Your task to perform on an android device: Clear the shopping cart on bestbuy.com. Search for rayovac triple a on bestbuy.com, select the first entry, and add it to the cart. Image 0: 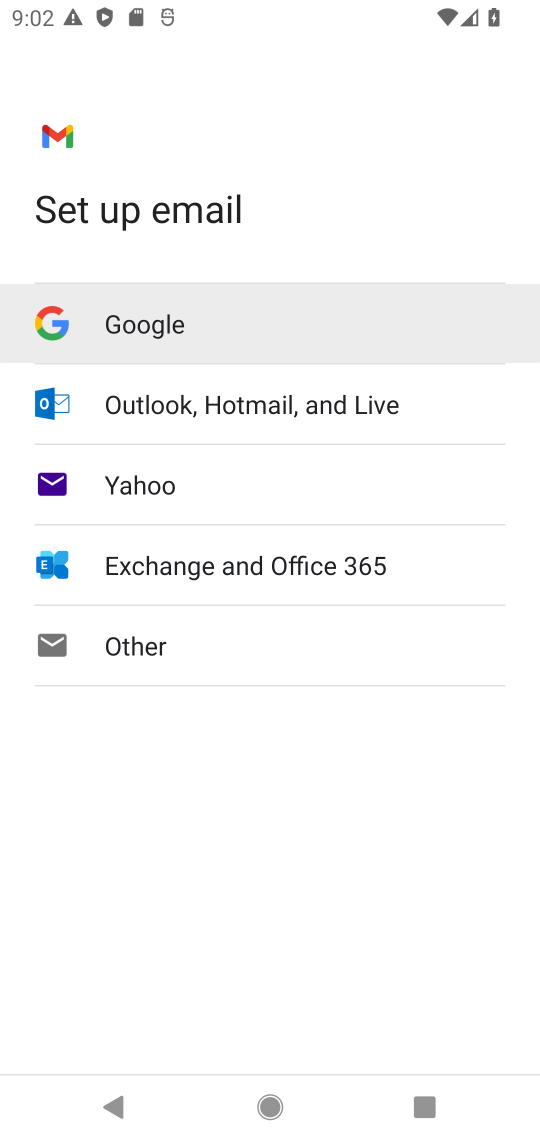
Step 0: press home button
Your task to perform on an android device: Clear the shopping cart on bestbuy.com. Search for rayovac triple a on bestbuy.com, select the first entry, and add it to the cart. Image 1: 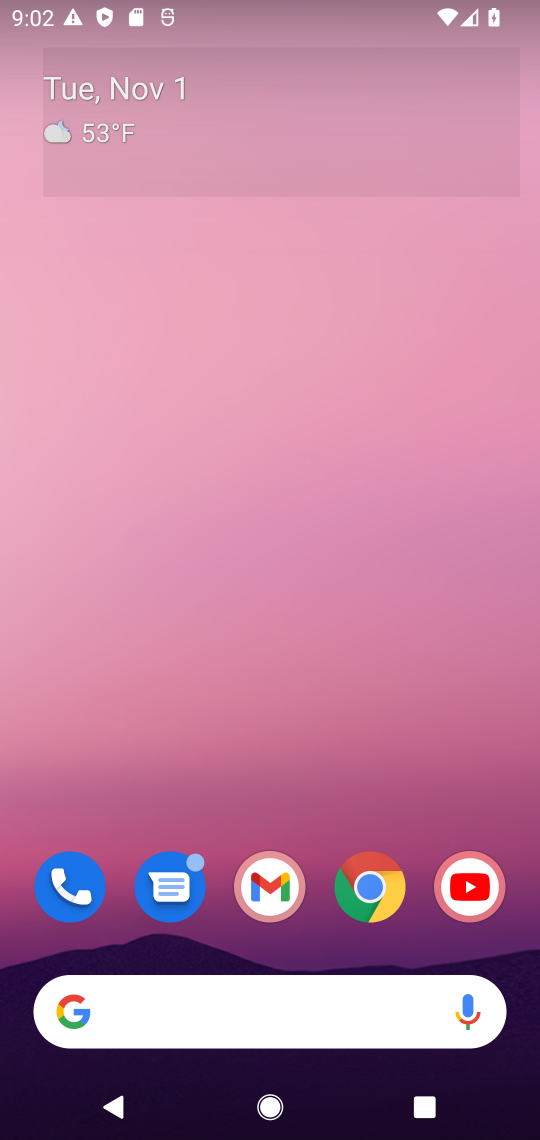
Step 1: drag from (205, 912) to (216, 383)
Your task to perform on an android device: Clear the shopping cart on bestbuy.com. Search for rayovac triple a on bestbuy.com, select the first entry, and add it to the cart. Image 2: 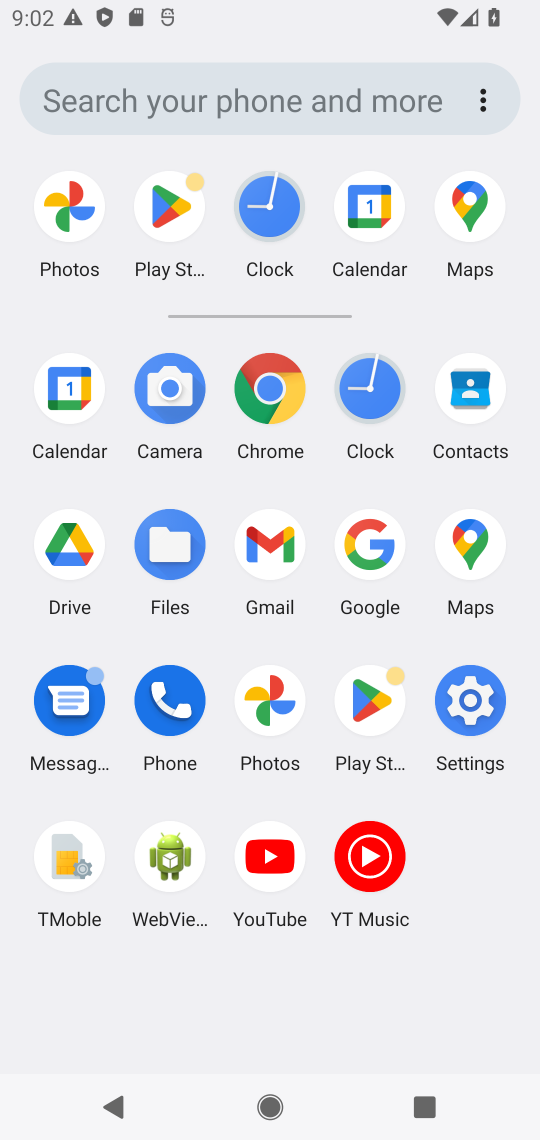
Step 2: click (374, 529)
Your task to perform on an android device: Clear the shopping cart on bestbuy.com. Search for rayovac triple a on bestbuy.com, select the first entry, and add it to the cart. Image 3: 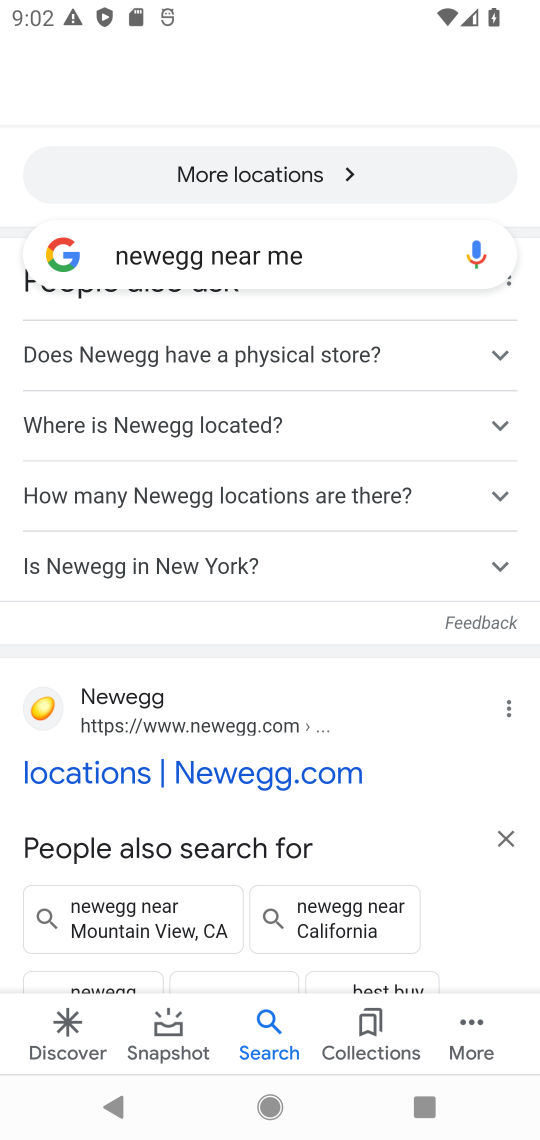
Step 3: click (262, 242)
Your task to perform on an android device: Clear the shopping cart on bestbuy.com. Search for rayovac triple a on bestbuy.com, select the first entry, and add it to the cart. Image 4: 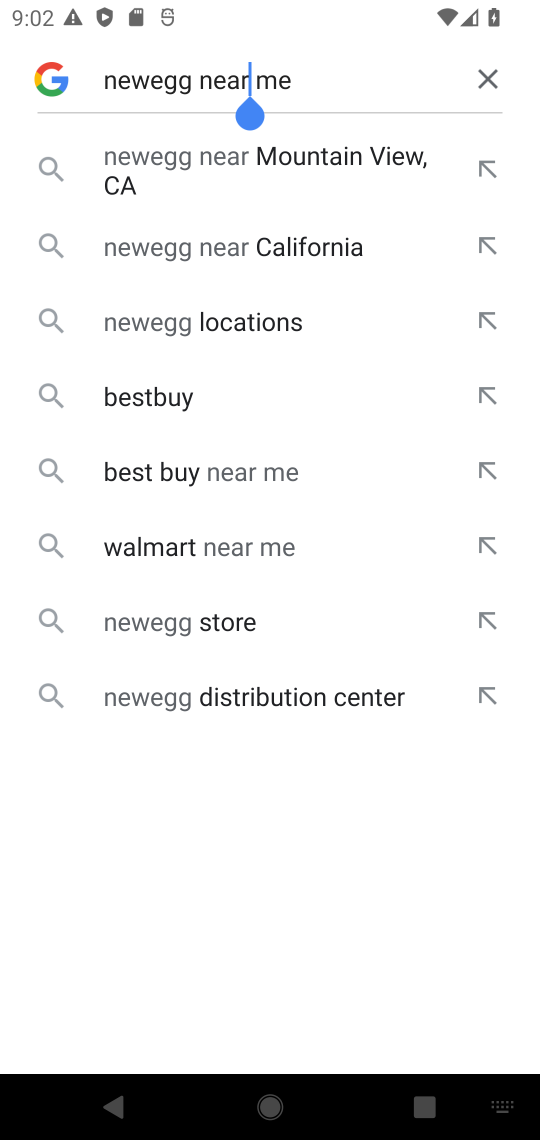
Step 4: click (471, 77)
Your task to perform on an android device: Clear the shopping cart on bestbuy.com. Search for rayovac triple a on bestbuy.com, select the first entry, and add it to the cart. Image 5: 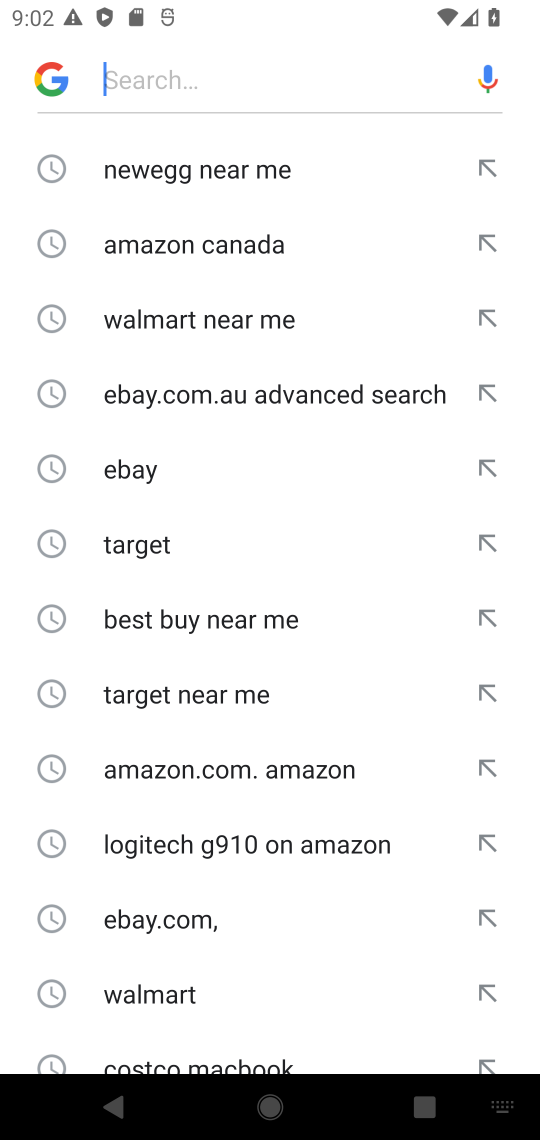
Step 5: click (168, 50)
Your task to perform on an android device: Clear the shopping cart on bestbuy.com. Search for rayovac triple a on bestbuy.com, select the first entry, and add it to the cart. Image 6: 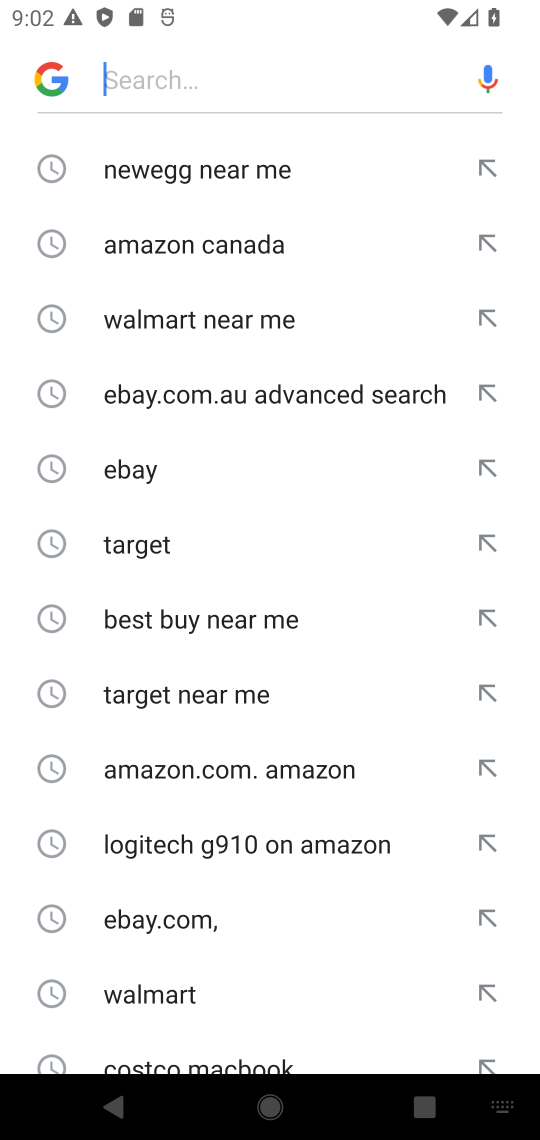
Step 6: type "bestbuy "
Your task to perform on an android device: Clear the shopping cart on bestbuy.com. Search for rayovac triple a on bestbuy.com, select the first entry, and add it to the cart. Image 7: 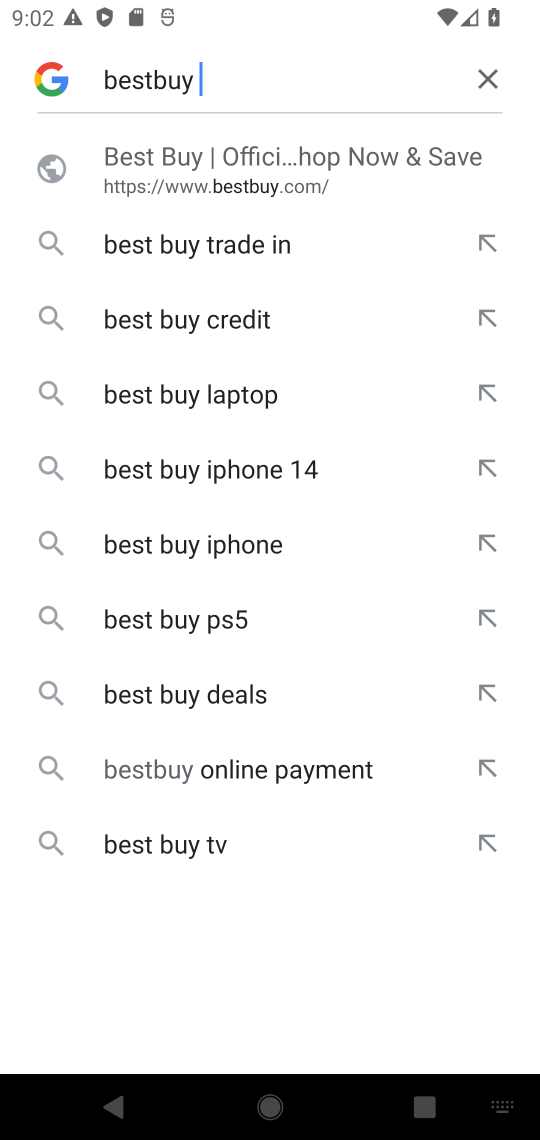
Step 7: click (139, 150)
Your task to perform on an android device: Clear the shopping cart on bestbuy.com. Search for rayovac triple a on bestbuy.com, select the first entry, and add it to the cart. Image 8: 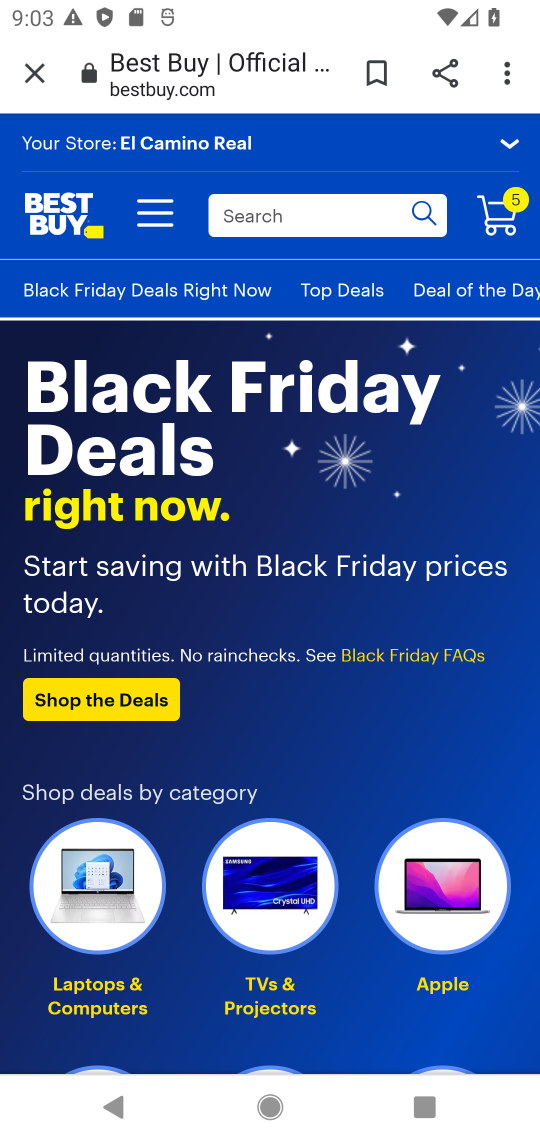
Step 8: click (296, 215)
Your task to perform on an android device: Clear the shopping cart on bestbuy.com. Search for rayovac triple a on bestbuy.com, select the first entry, and add it to the cart. Image 9: 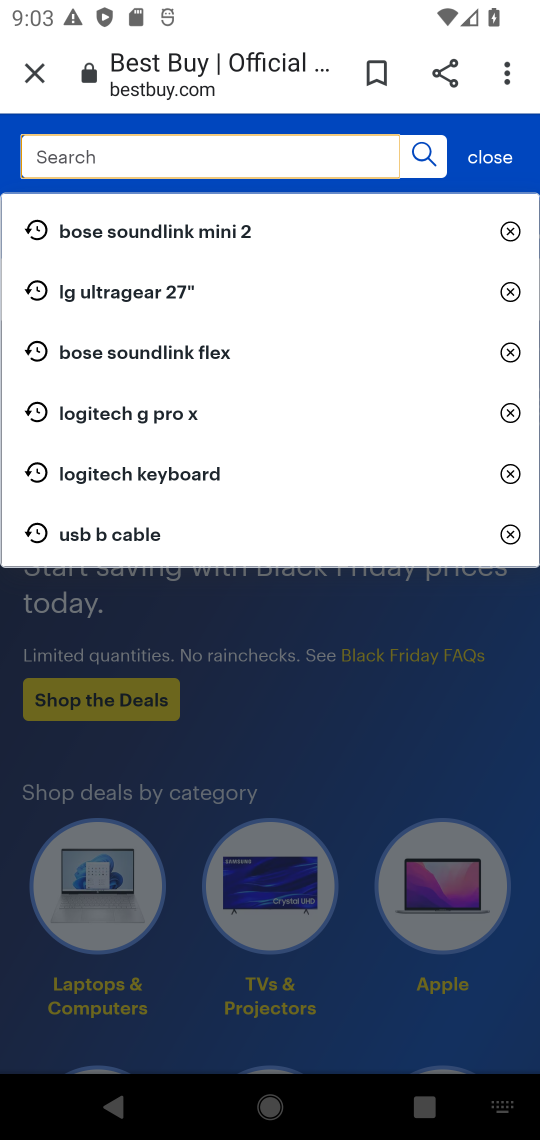
Step 9: type "rayovac triple  "
Your task to perform on an android device: Clear the shopping cart on bestbuy.com. Search for rayovac triple a on bestbuy.com, select the first entry, and add it to the cart. Image 10: 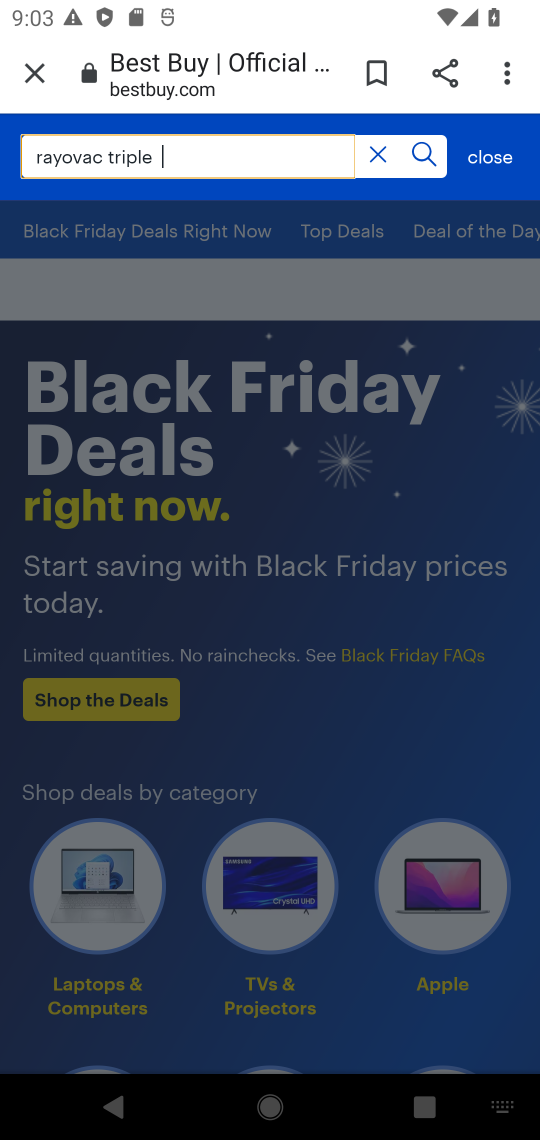
Step 10: click (417, 145)
Your task to perform on an android device: Clear the shopping cart on bestbuy.com. Search for rayovac triple a on bestbuy.com, select the first entry, and add it to the cart. Image 11: 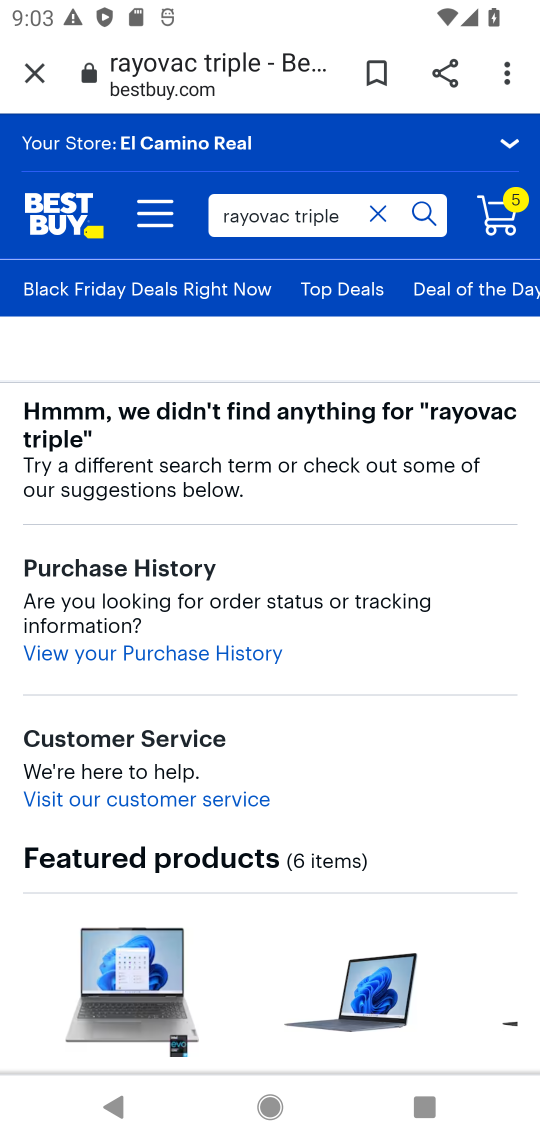
Step 11: drag from (446, 883) to (410, 436)
Your task to perform on an android device: Clear the shopping cart on bestbuy.com. Search for rayovac triple a on bestbuy.com, select the first entry, and add it to the cart. Image 12: 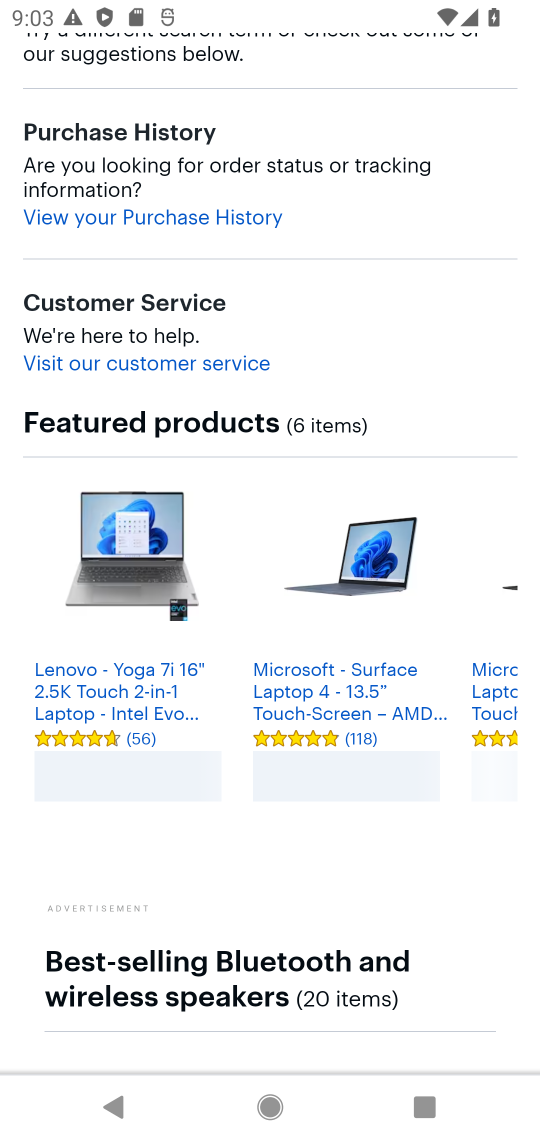
Step 12: drag from (337, 780) to (326, 305)
Your task to perform on an android device: Clear the shopping cart on bestbuy.com. Search for rayovac triple a on bestbuy.com, select the first entry, and add it to the cart. Image 13: 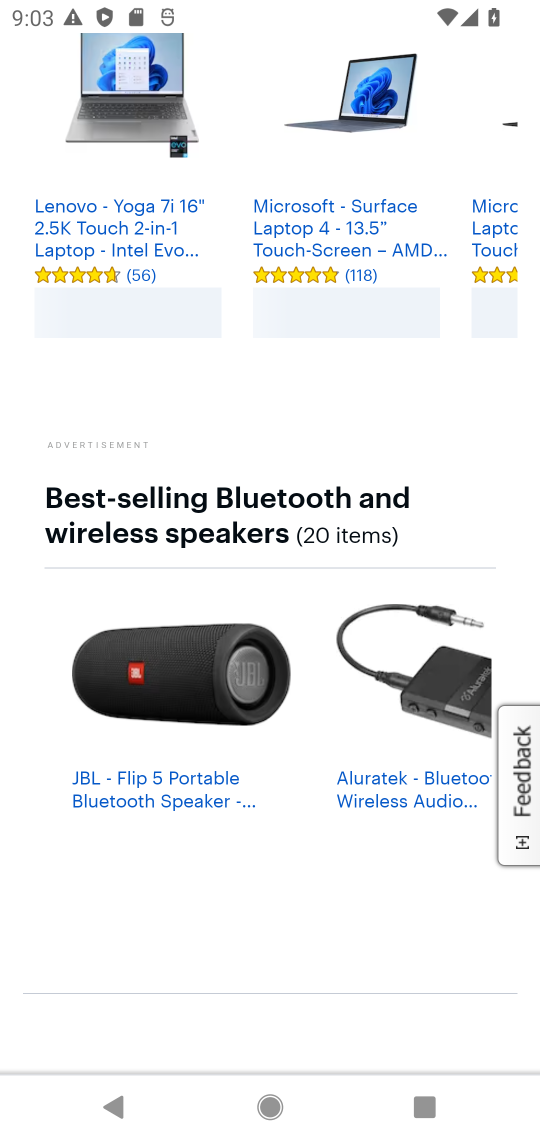
Step 13: drag from (231, 173) to (198, 839)
Your task to perform on an android device: Clear the shopping cart on bestbuy.com. Search for rayovac triple a on bestbuy.com, select the first entry, and add it to the cart. Image 14: 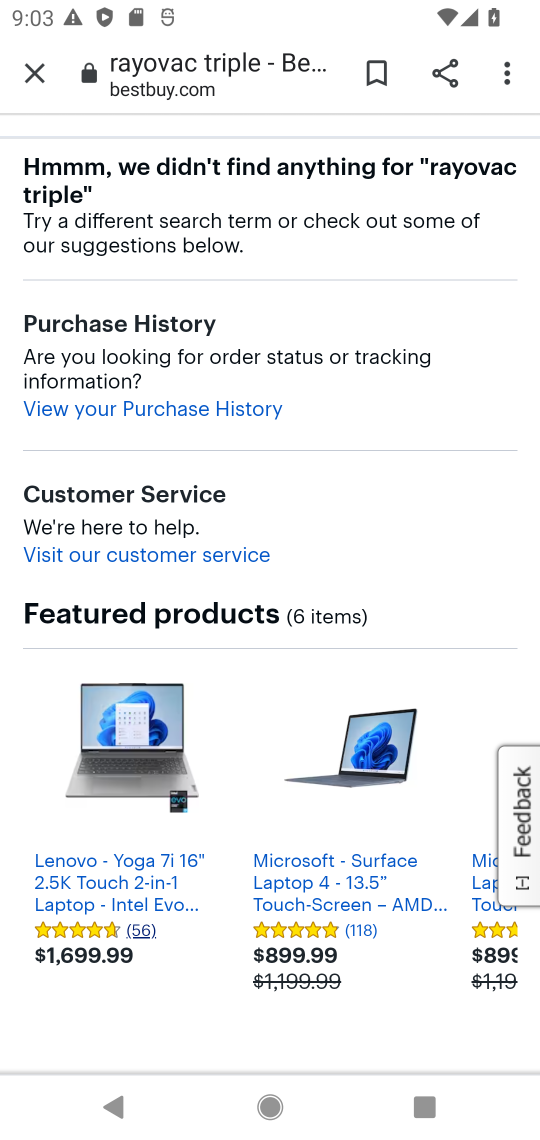
Step 14: drag from (191, 378) to (150, 894)
Your task to perform on an android device: Clear the shopping cart on bestbuy.com. Search for rayovac triple a on bestbuy.com, select the first entry, and add it to the cart. Image 15: 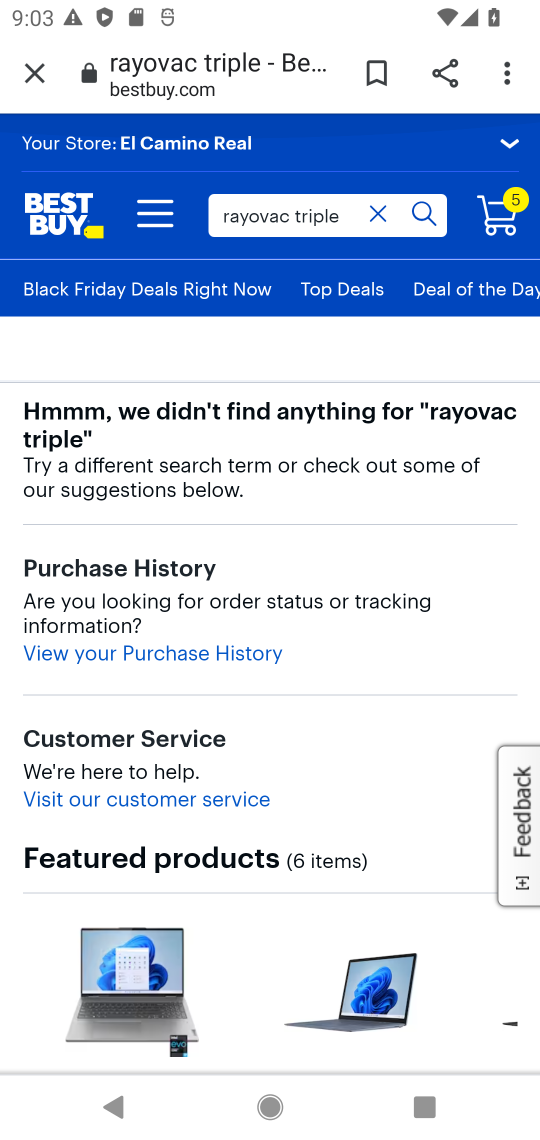
Step 15: drag from (234, 268) to (238, 796)
Your task to perform on an android device: Clear the shopping cart on bestbuy.com. Search for rayovac triple a on bestbuy.com, select the first entry, and add it to the cart. Image 16: 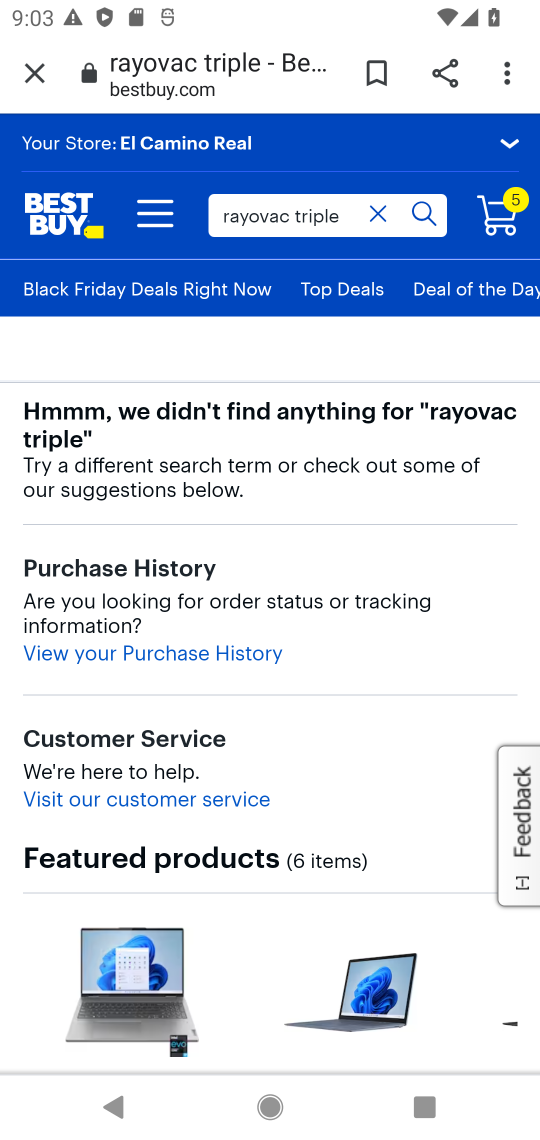
Step 16: click (422, 208)
Your task to perform on an android device: Clear the shopping cart on bestbuy.com. Search for rayovac triple a on bestbuy.com, select the first entry, and add it to the cart. Image 17: 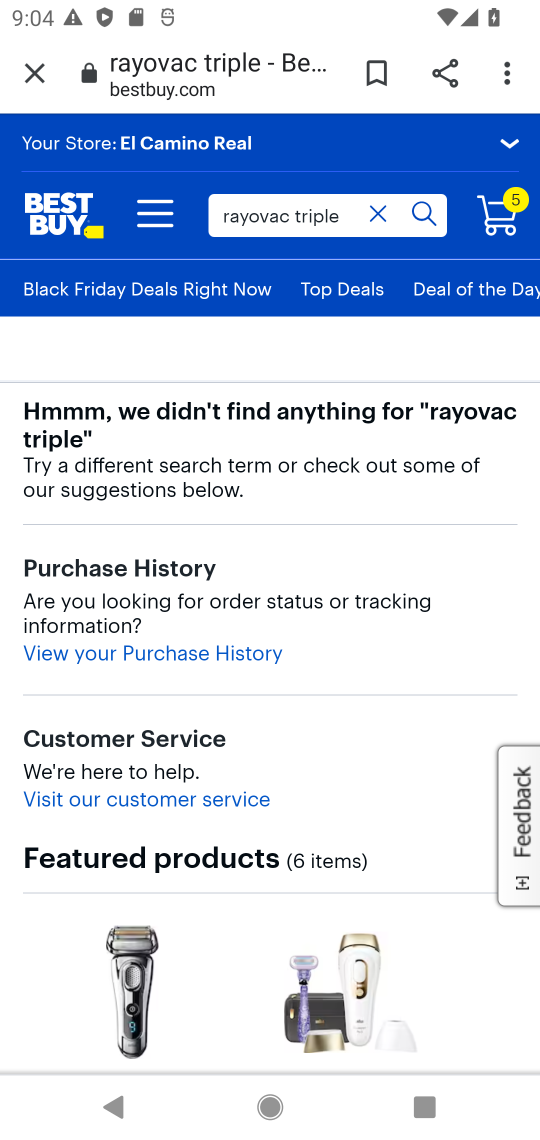
Step 17: click (376, 228)
Your task to perform on an android device: Clear the shopping cart on bestbuy.com. Search for rayovac triple a on bestbuy.com, select the first entry, and add it to the cart. Image 18: 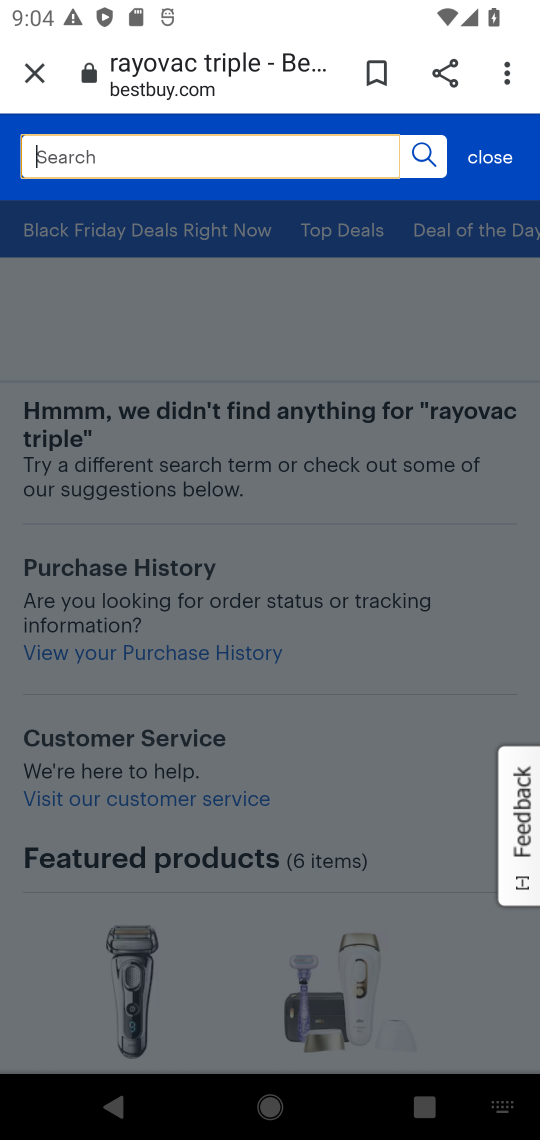
Step 18: click (370, 210)
Your task to perform on an android device: Clear the shopping cart on bestbuy.com. Search for rayovac triple a on bestbuy.com, select the first entry, and add it to the cart. Image 19: 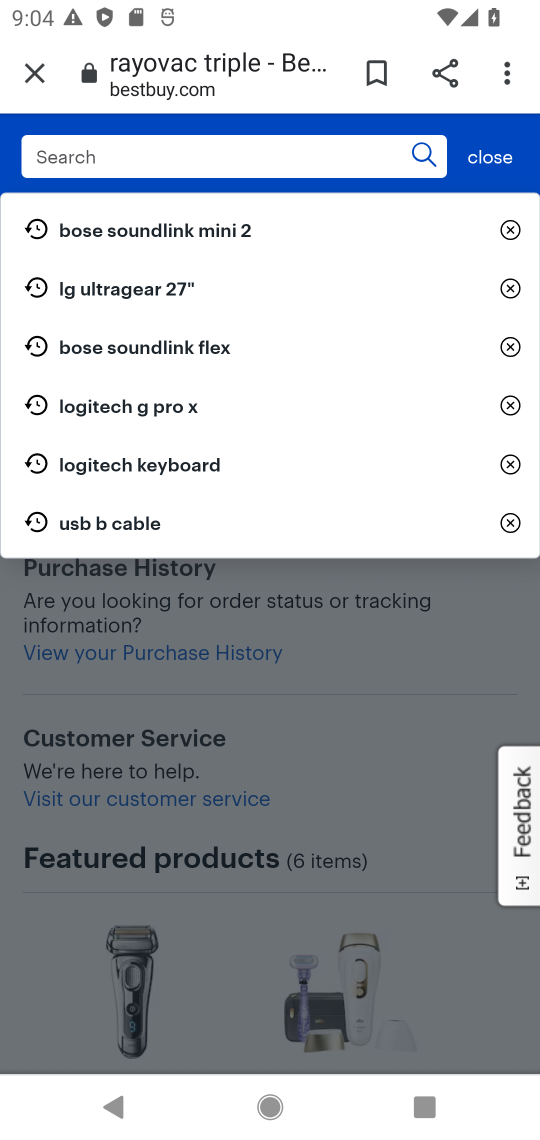
Step 19: click (209, 159)
Your task to perform on an android device: Clear the shopping cart on bestbuy.com. Search for rayovac triple a on bestbuy.com, select the first entry, and add it to the cart. Image 20: 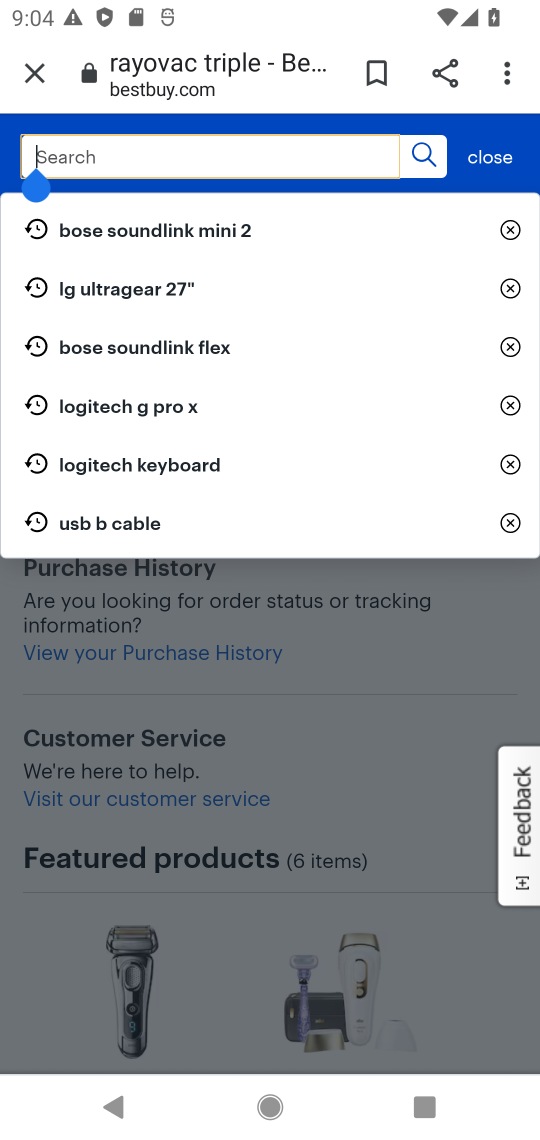
Step 20: type "triple "
Your task to perform on an android device: Clear the shopping cart on bestbuy.com. Search for rayovac triple a on bestbuy.com, select the first entry, and add it to the cart. Image 21: 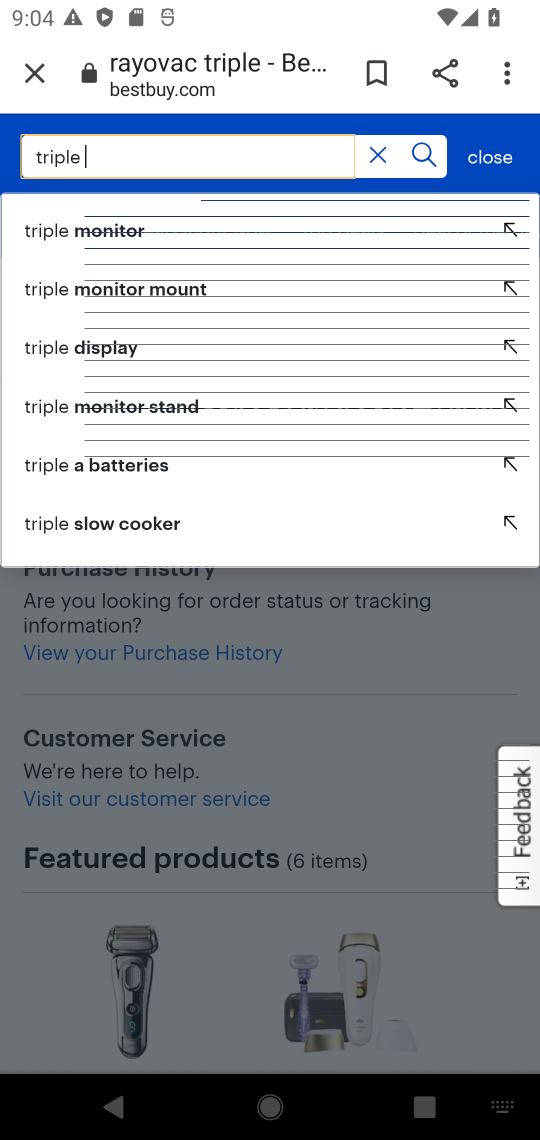
Step 21: click (61, 240)
Your task to perform on an android device: Clear the shopping cart on bestbuy.com. Search for rayovac triple a on bestbuy.com, select the first entry, and add it to the cart. Image 22: 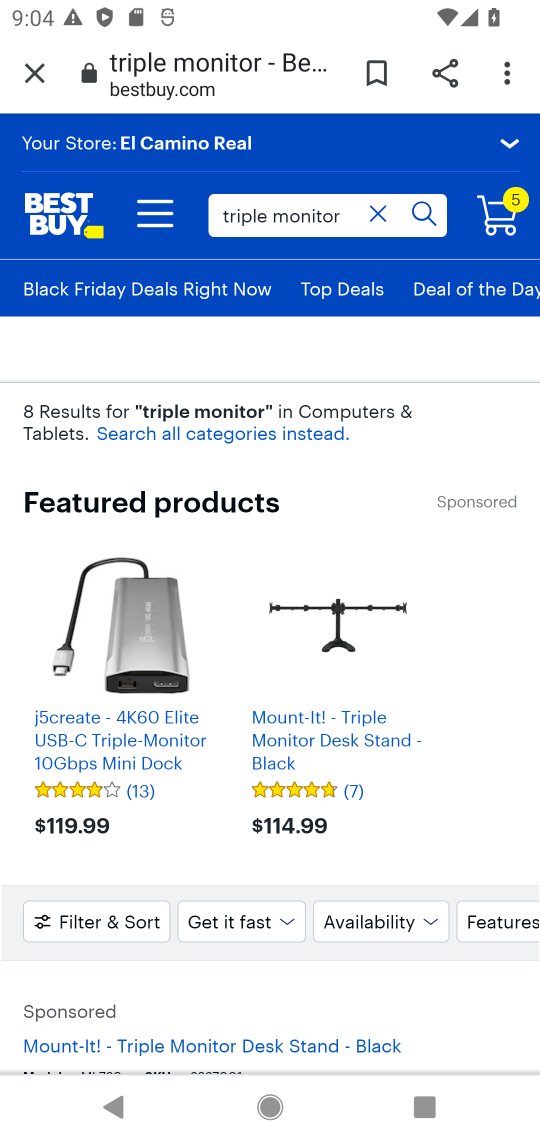
Step 22: click (372, 219)
Your task to perform on an android device: Clear the shopping cart on bestbuy.com. Search for rayovac triple a on bestbuy.com, select the first entry, and add it to the cart. Image 23: 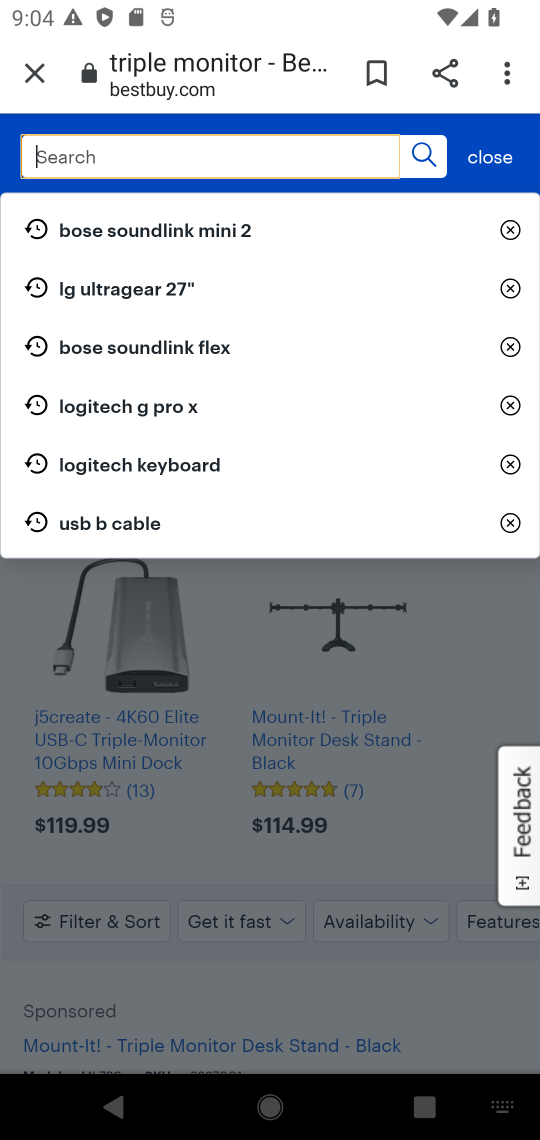
Step 23: click (328, 146)
Your task to perform on an android device: Clear the shopping cart on bestbuy.com. Search for rayovac triple a on bestbuy.com, select the first entry, and add it to the cart. Image 24: 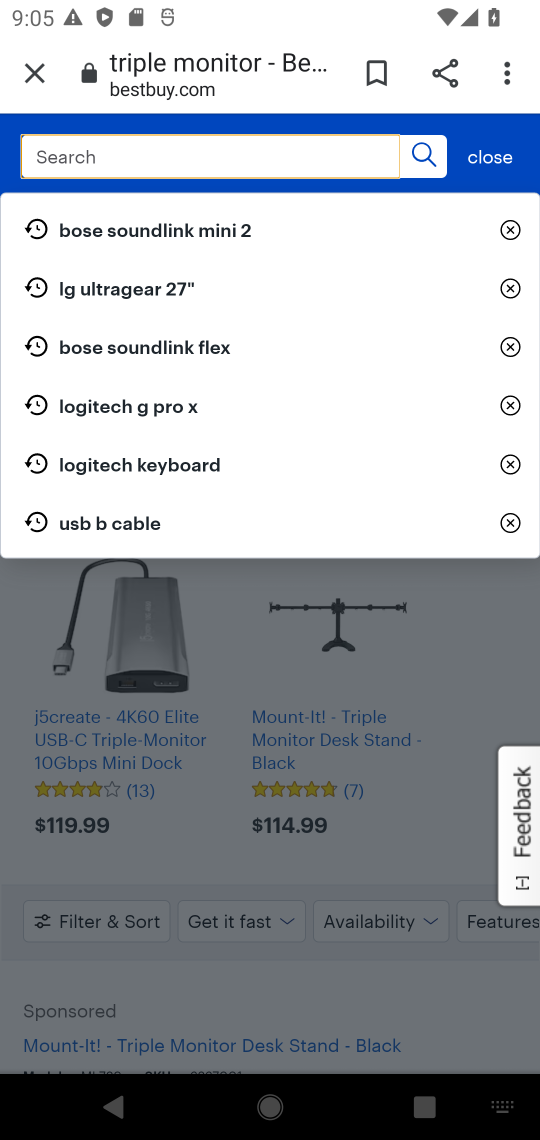
Step 24: type "rayovac "
Your task to perform on an android device: Clear the shopping cart on bestbuy.com. Search for rayovac triple a on bestbuy.com, select the first entry, and add it to the cart. Image 25: 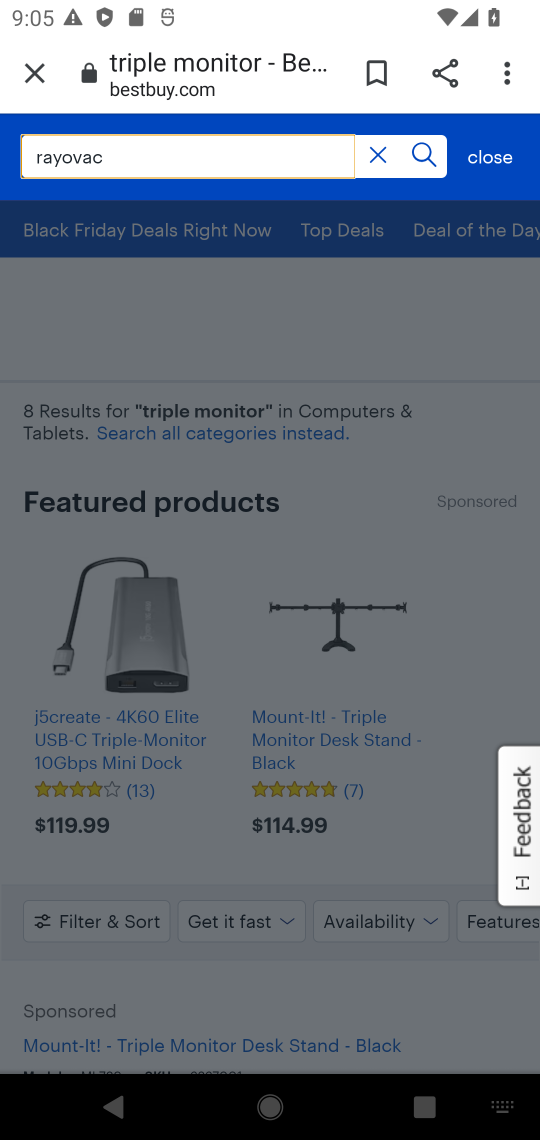
Step 25: click (418, 167)
Your task to perform on an android device: Clear the shopping cart on bestbuy.com. Search for rayovac triple a on bestbuy.com, select the first entry, and add it to the cart. Image 26: 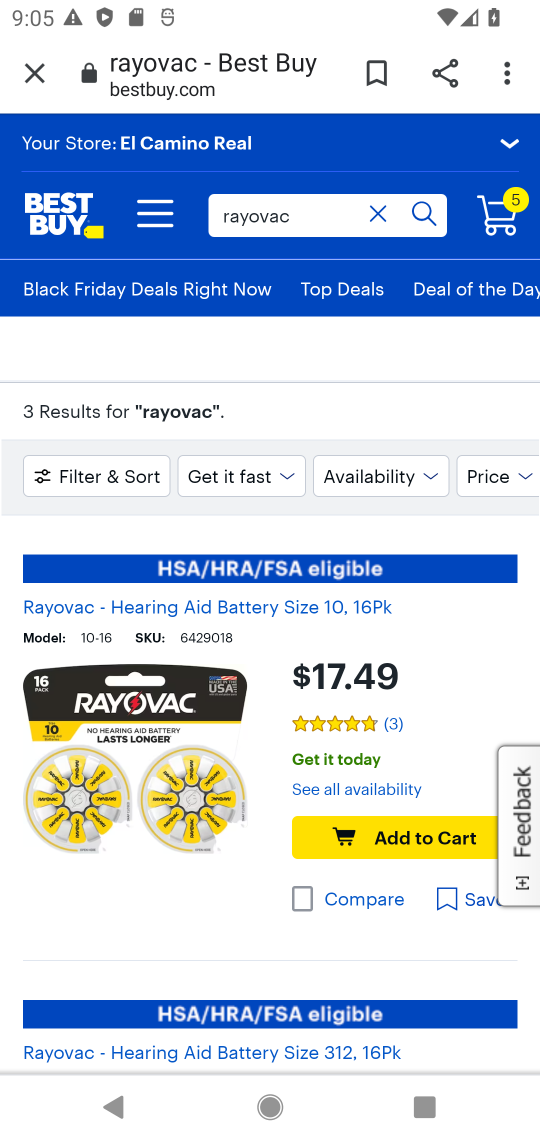
Step 26: drag from (224, 871) to (243, 640)
Your task to perform on an android device: Clear the shopping cart on bestbuy.com. Search for rayovac triple a on bestbuy.com, select the first entry, and add it to the cart. Image 27: 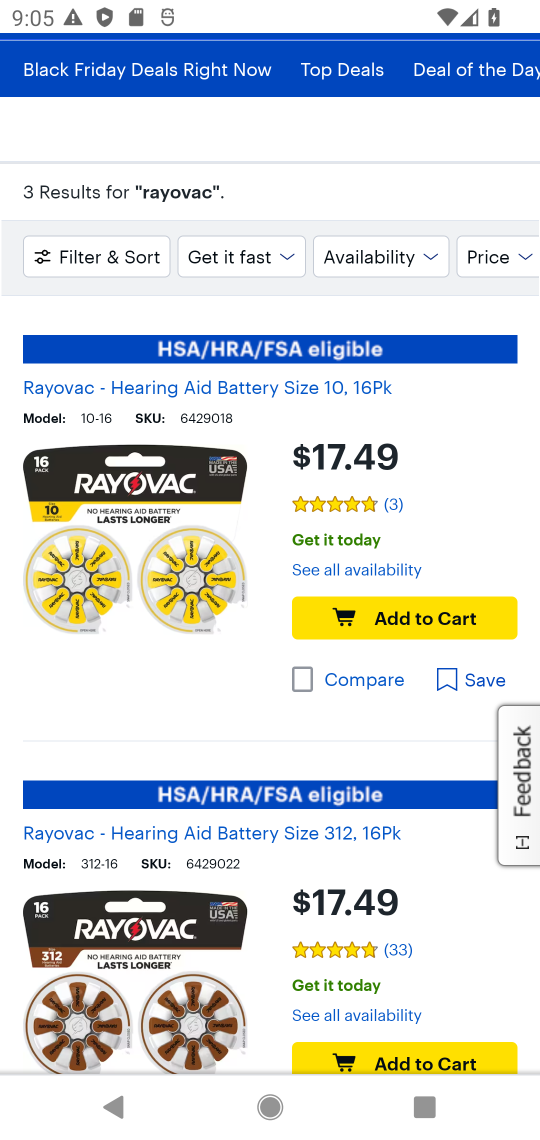
Step 27: click (398, 712)
Your task to perform on an android device: Clear the shopping cart on bestbuy.com. Search for rayovac triple a on bestbuy.com, select the first entry, and add it to the cart. Image 28: 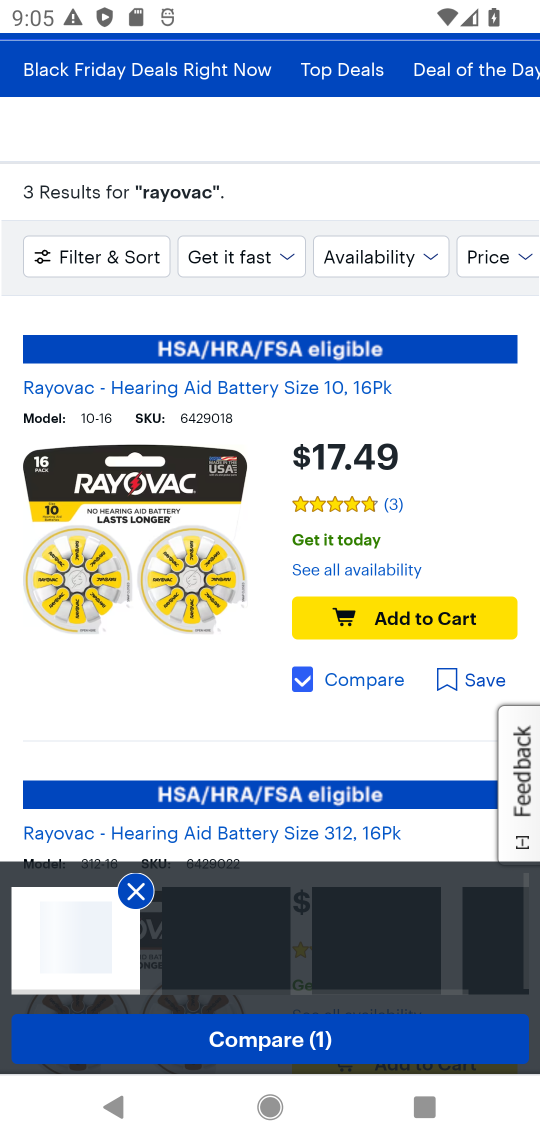
Step 28: click (410, 610)
Your task to perform on an android device: Clear the shopping cart on bestbuy.com. Search for rayovac triple a on bestbuy.com, select the first entry, and add it to the cart. Image 29: 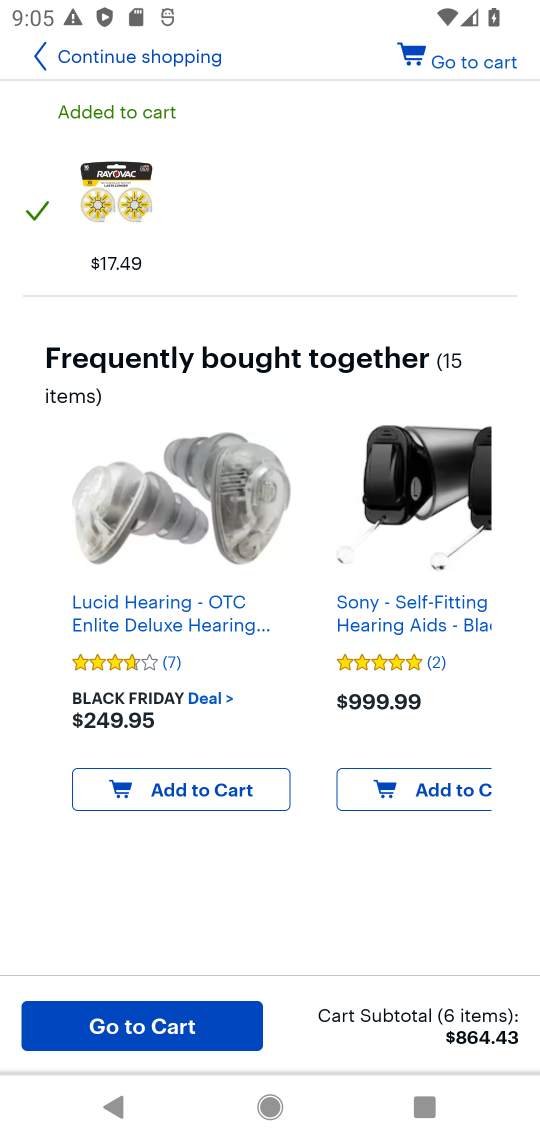
Step 29: task complete